Your task to perform on an android device: check the backup settings in the google photos Image 0: 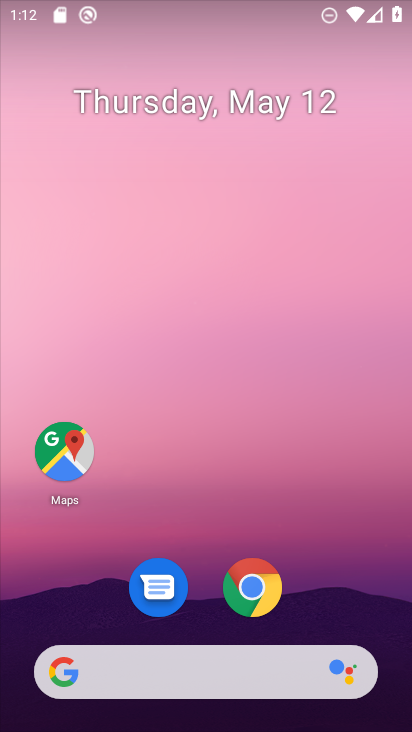
Step 0: drag from (326, 589) to (280, 27)
Your task to perform on an android device: check the backup settings in the google photos Image 1: 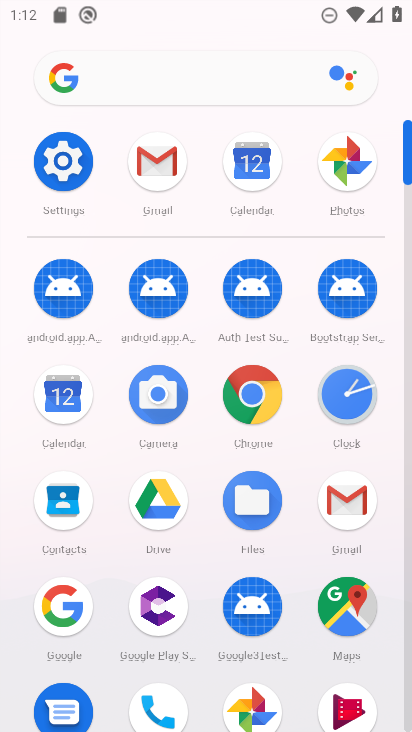
Step 1: click (348, 162)
Your task to perform on an android device: check the backup settings in the google photos Image 2: 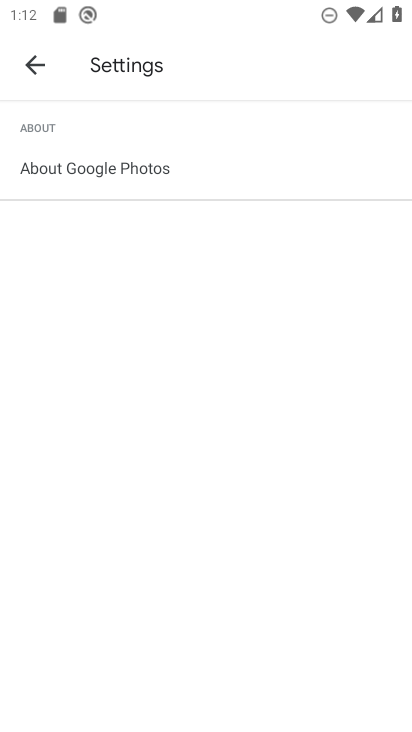
Step 2: press back button
Your task to perform on an android device: check the backup settings in the google photos Image 3: 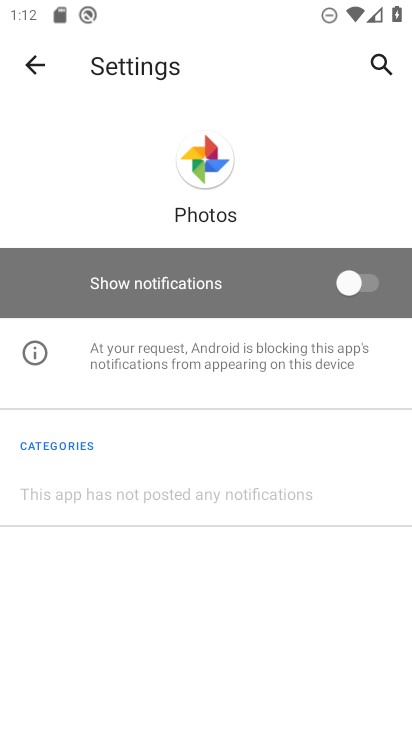
Step 3: press back button
Your task to perform on an android device: check the backup settings in the google photos Image 4: 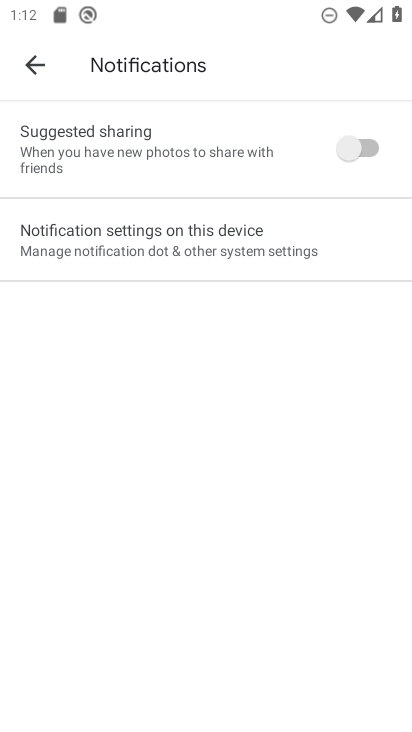
Step 4: press back button
Your task to perform on an android device: check the backup settings in the google photos Image 5: 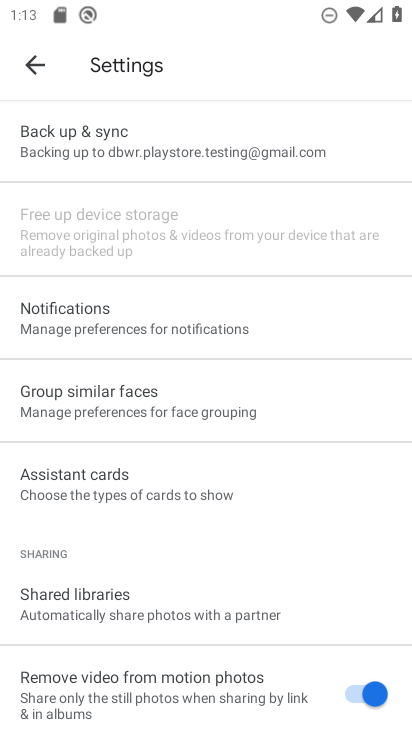
Step 5: click (286, 154)
Your task to perform on an android device: check the backup settings in the google photos Image 6: 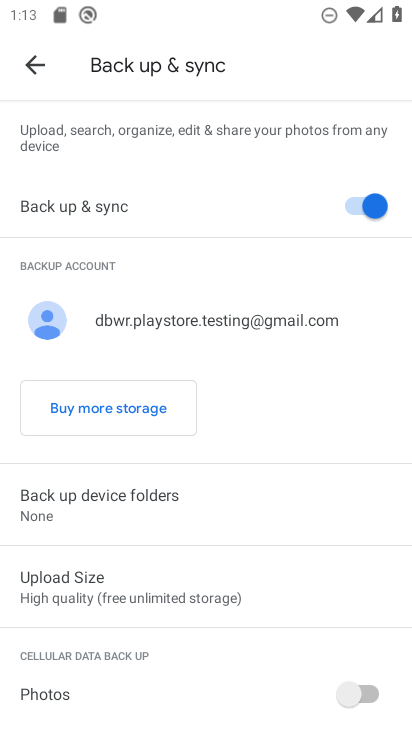
Step 6: task complete